Your task to perform on an android device: check storage Image 0: 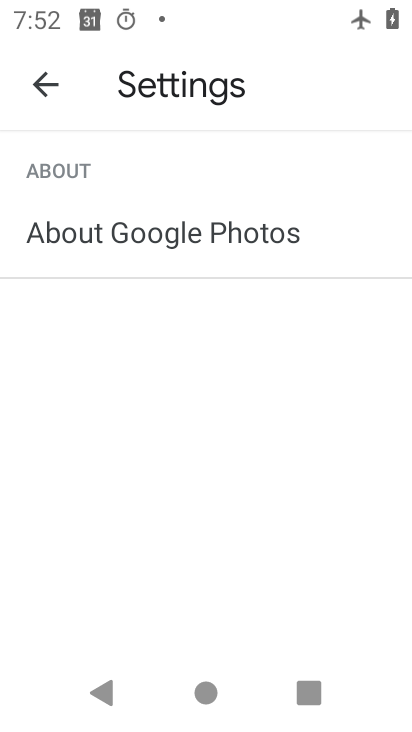
Step 0: press home button
Your task to perform on an android device: check storage Image 1: 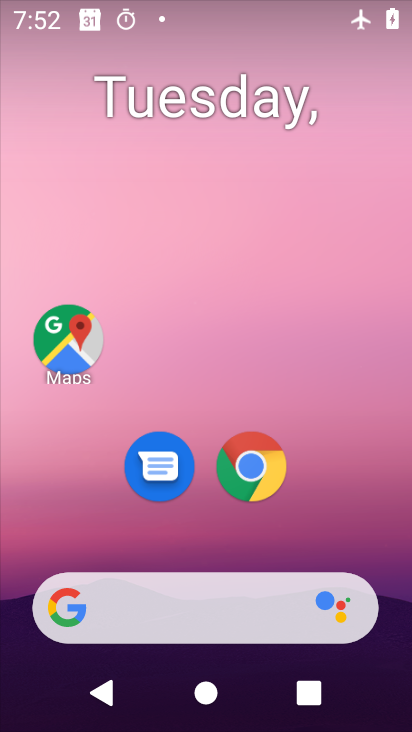
Step 1: drag from (19, 553) to (233, 117)
Your task to perform on an android device: check storage Image 2: 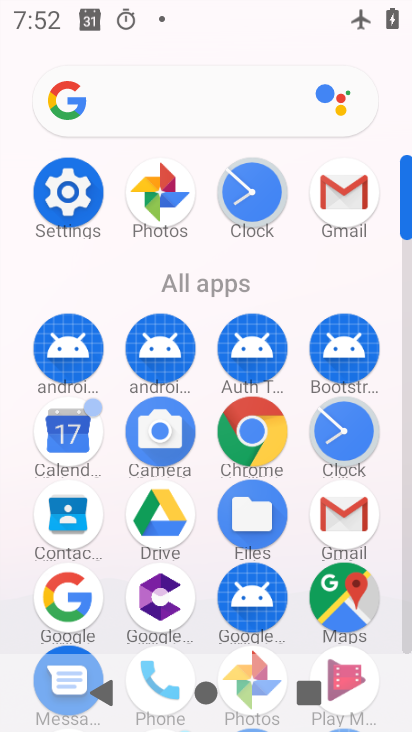
Step 2: click (59, 194)
Your task to perform on an android device: check storage Image 3: 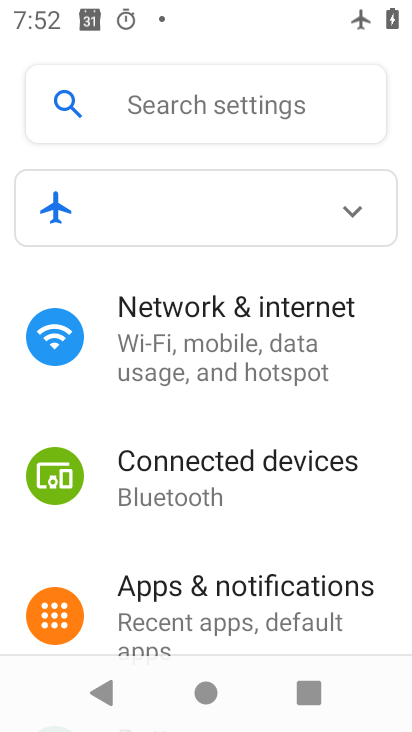
Step 3: drag from (3, 611) to (179, 207)
Your task to perform on an android device: check storage Image 4: 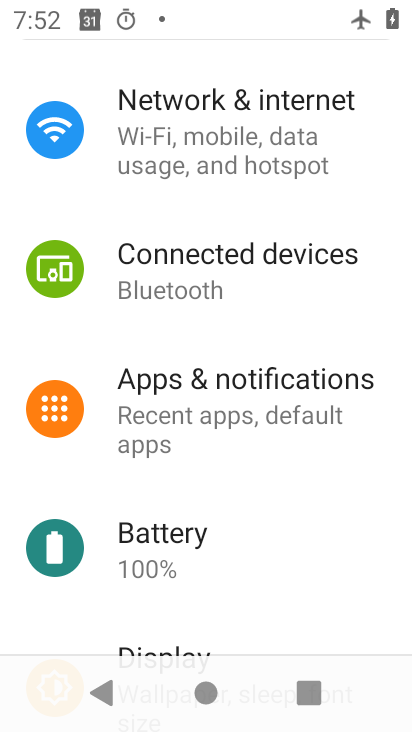
Step 4: drag from (7, 603) to (230, 205)
Your task to perform on an android device: check storage Image 5: 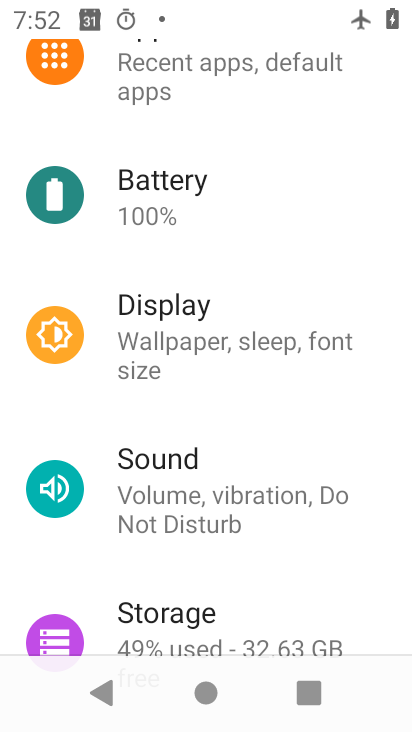
Step 5: click (73, 630)
Your task to perform on an android device: check storage Image 6: 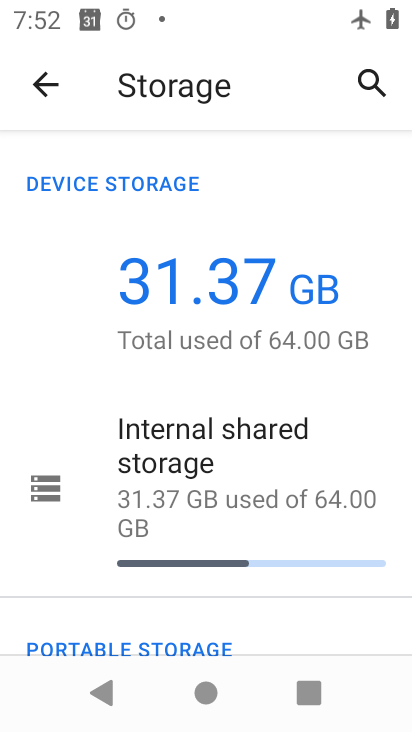
Step 6: task complete